Your task to perform on an android device: Toggle the flashlight Image 0: 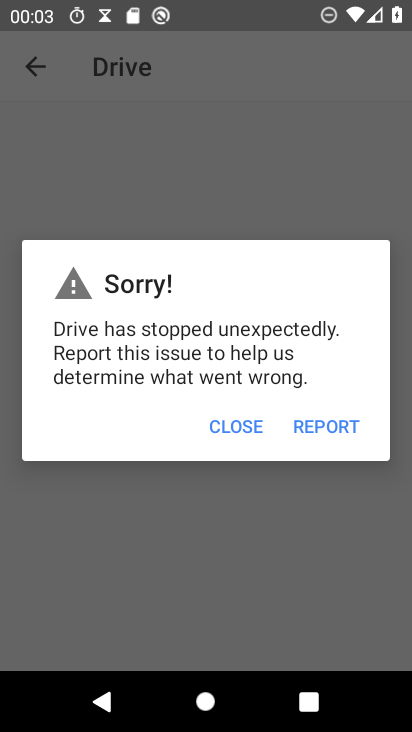
Step 0: press home button
Your task to perform on an android device: Toggle the flashlight Image 1: 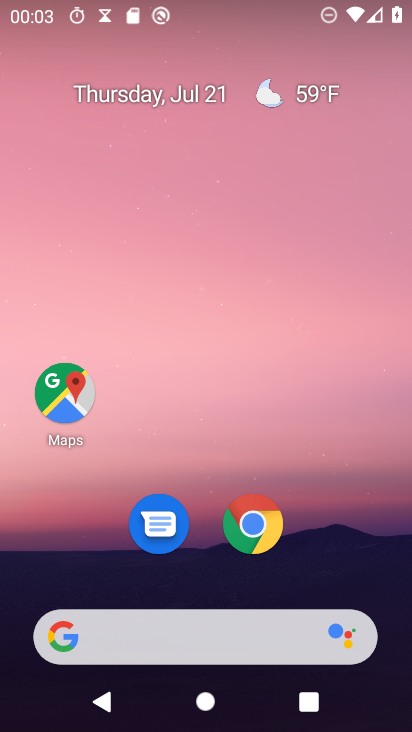
Step 1: task complete